Your task to perform on an android device: open wifi settings Image 0: 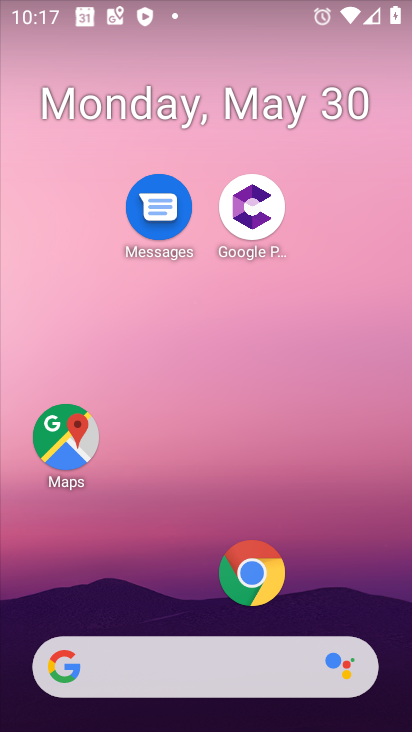
Step 0: drag from (214, 665) to (298, 145)
Your task to perform on an android device: open wifi settings Image 1: 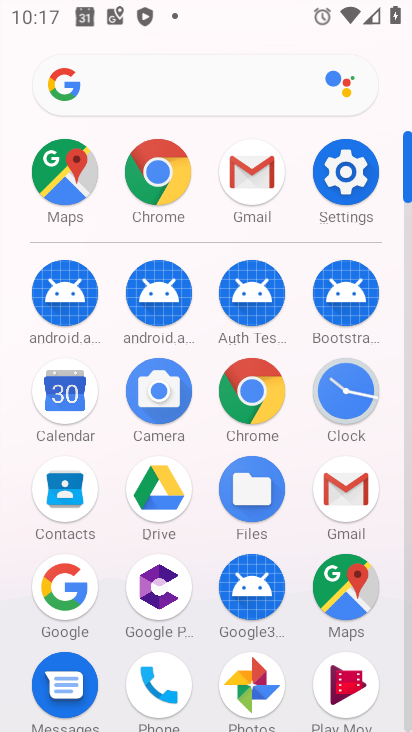
Step 1: click (333, 195)
Your task to perform on an android device: open wifi settings Image 2: 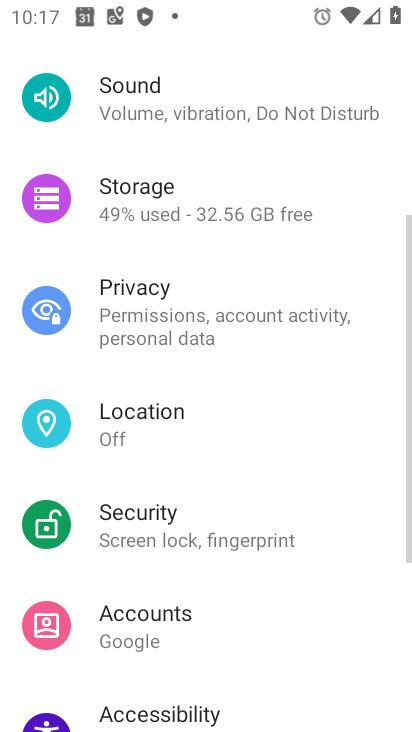
Step 2: drag from (270, 222) to (217, 545)
Your task to perform on an android device: open wifi settings Image 3: 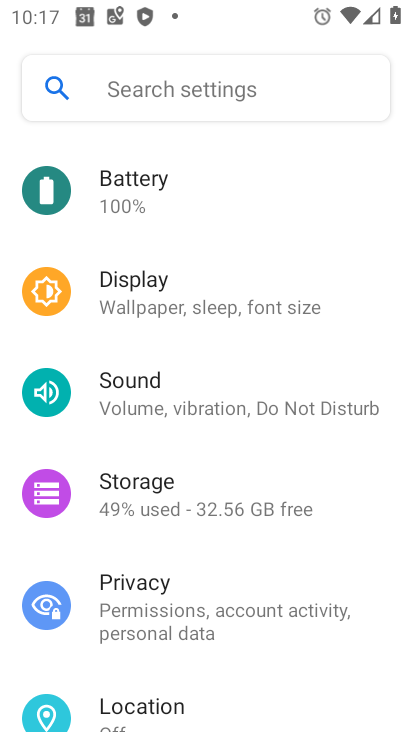
Step 3: drag from (248, 302) to (255, 565)
Your task to perform on an android device: open wifi settings Image 4: 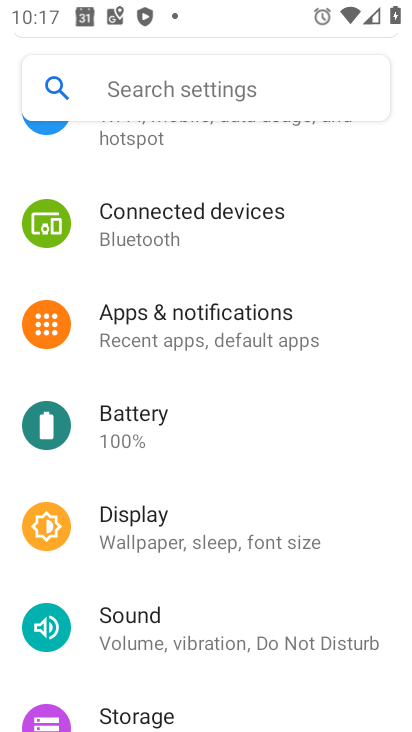
Step 4: drag from (261, 380) to (250, 629)
Your task to perform on an android device: open wifi settings Image 5: 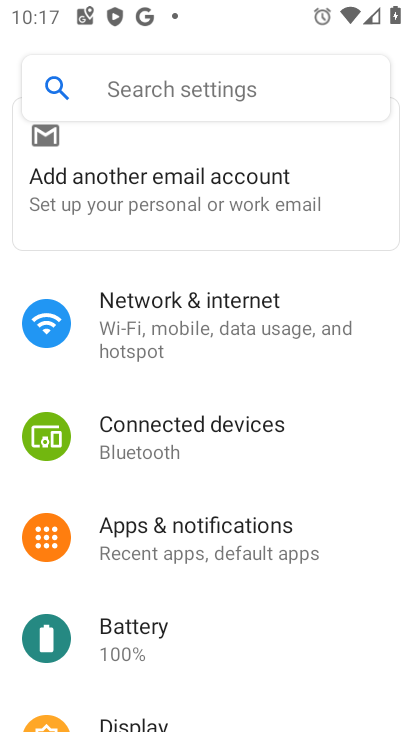
Step 5: click (256, 327)
Your task to perform on an android device: open wifi settings Image 6: 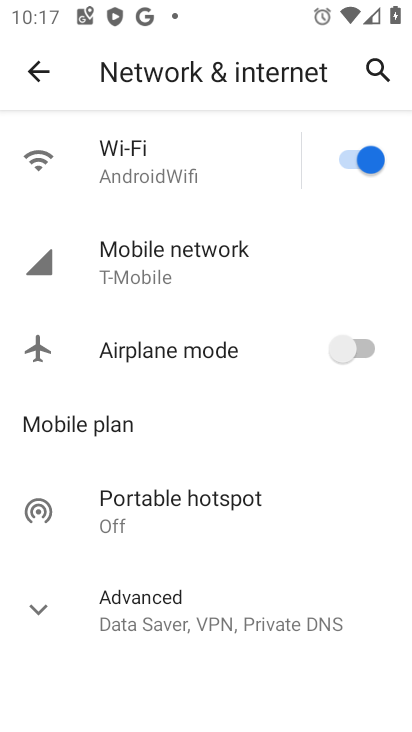
Step 6: click (233, 170)
Your task to perform on an android device: open wifi settings Image 7: 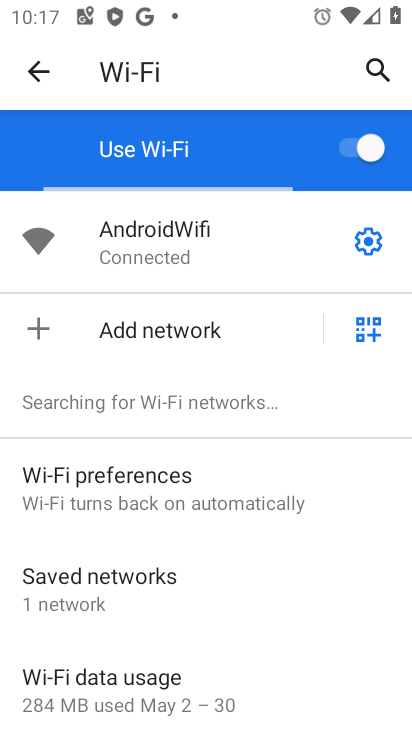
Step 7: task complete